Your task to perform on an android device: check battery use Image 0: 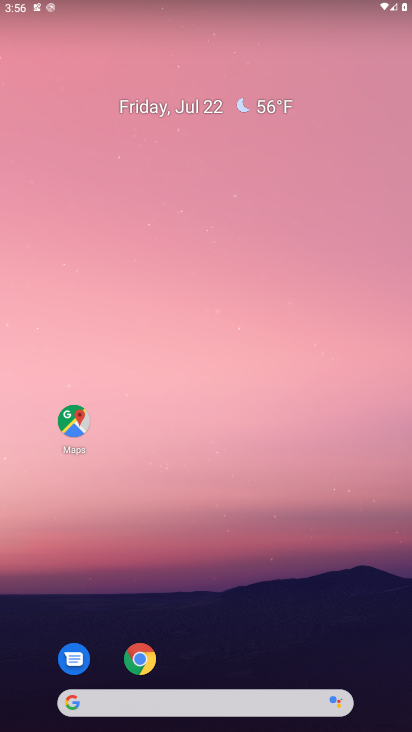
Step 0: drag from (182, 684) to (219, 202)
Your task to perform on an android device: check battery use Image 1: 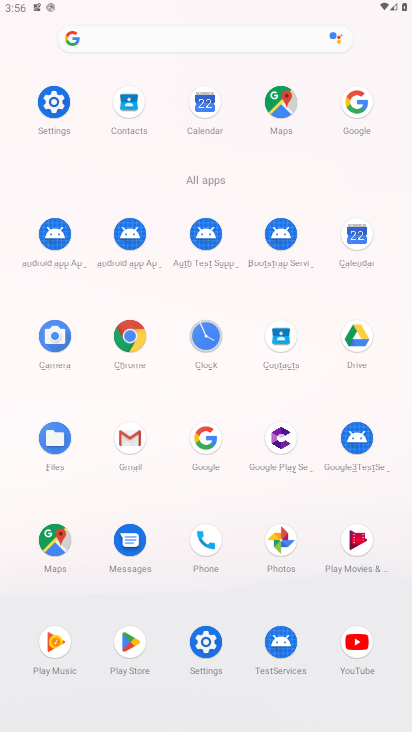
Step 1: click (52, 109)
Your task to perform on an android device: check battery use Image 2: 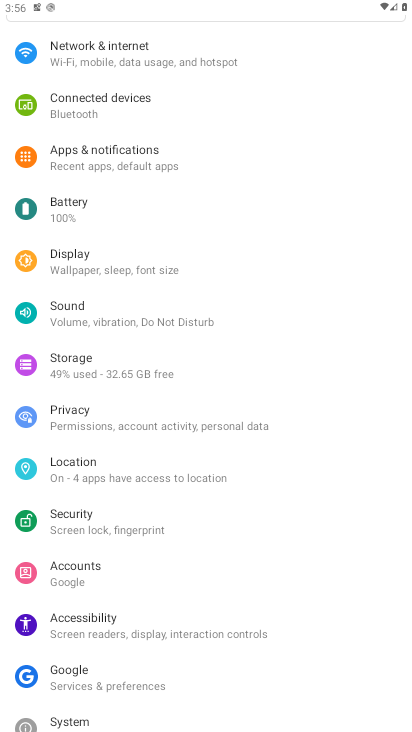
Step 2: click (71, 212)
Your task to perform on an android device: check battery use Image 3: 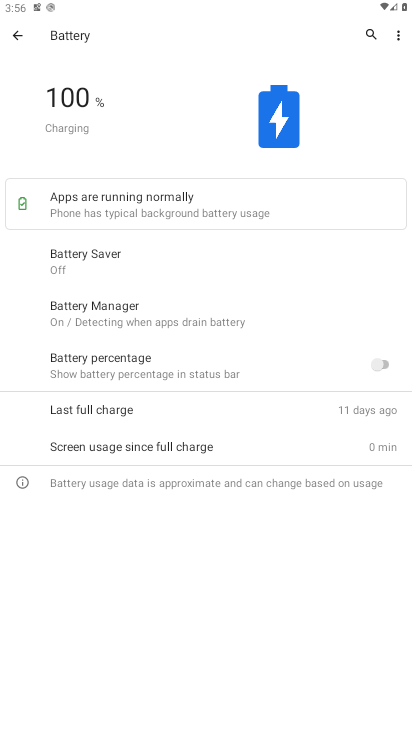
Step 3: click (392, 34)
Your task to perform on an android device: check battery use Image 4: 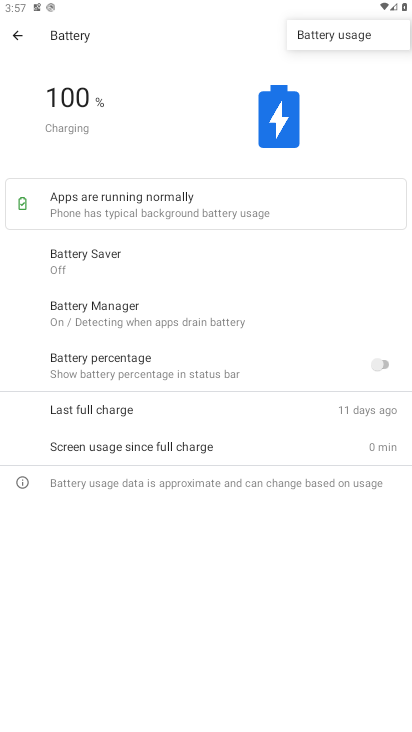
Step 4: click (367, 31)
Your task to perform on an android device: check battery use Image 5: 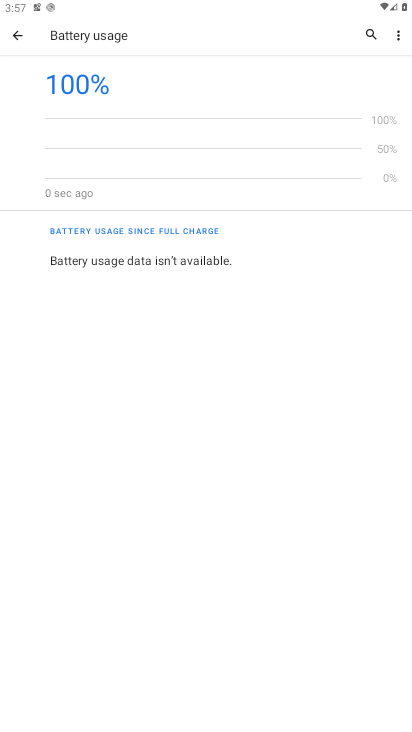
Step 5: task complete